Your task to perform on an android device: Go to wifi settings Image 0: 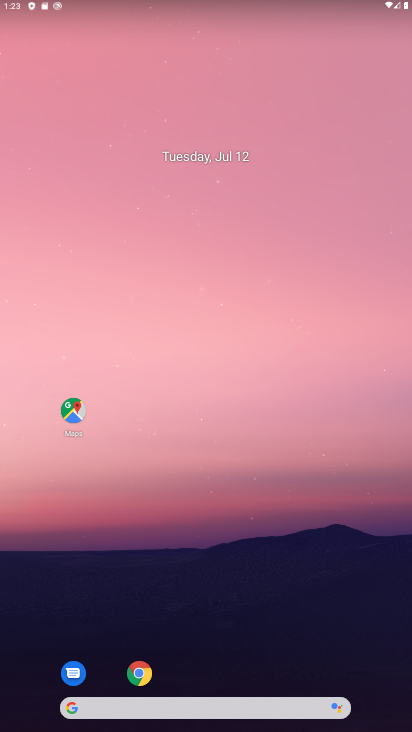
Step 0: drag from (329, 611) to (357, 82)
Your task to perform on an android device: Go to wifi settings Image 1: 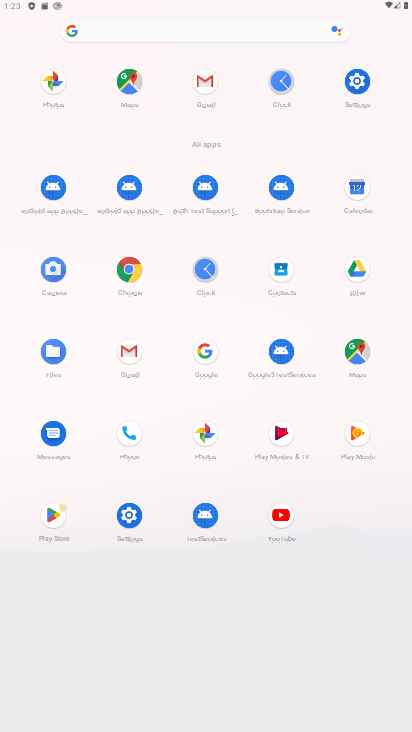
Step 1: click (365, 76)
Your task to perform on an android device: Go to wifi settings Image 2: 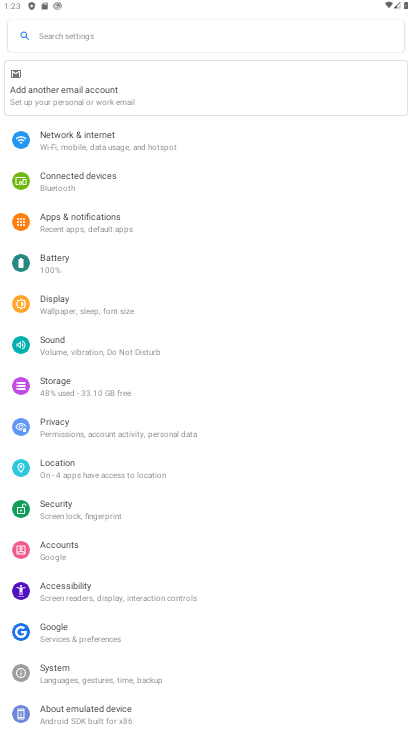
Step 2: press home button
Your task to perform on an android device: Go to wifi settings Image 3: 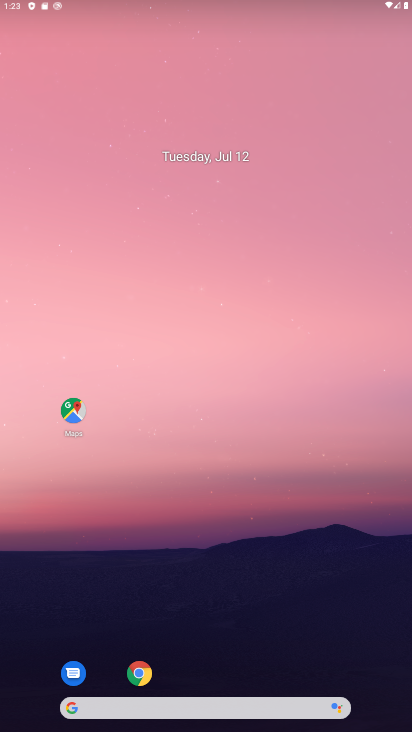
Step 3: drag from (303, 553) to (403, 15)
Your task to perform on an android device: Go to wifi settings Image 4: 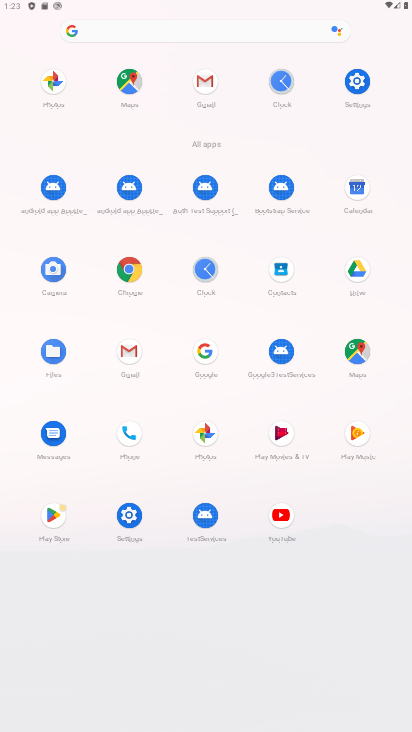
Step 4: click (346, 78)
Your task to perform on an android device: Go to wifi settings Image 5: 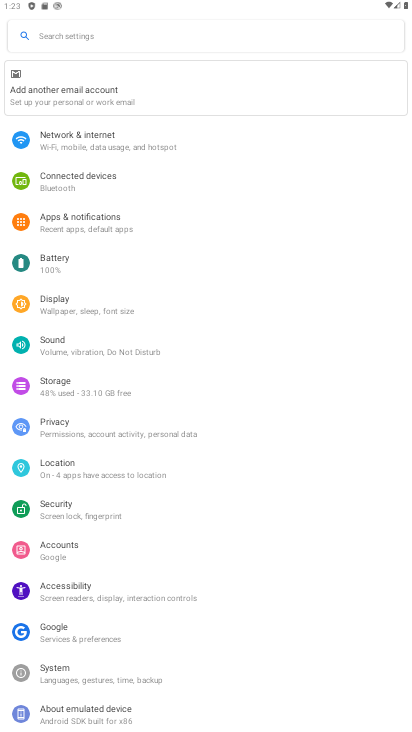
Step 5: click (87, 143)
Your task to perform on an android device: Go to wifi settings Image 6: 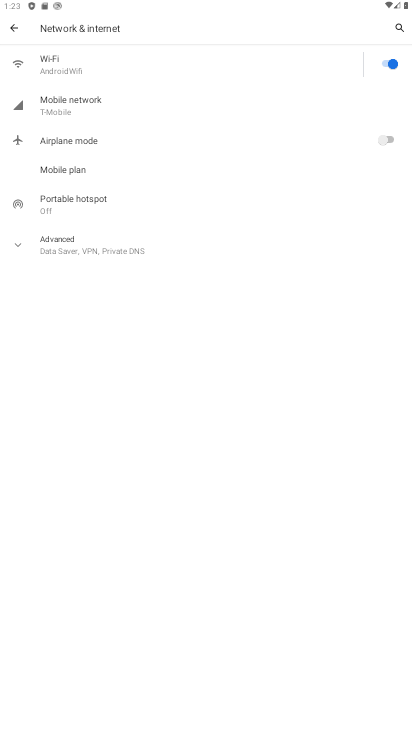
Step 6: click (108, 68)
Your task to perform on an android device: Go to wifi settings Image 7: 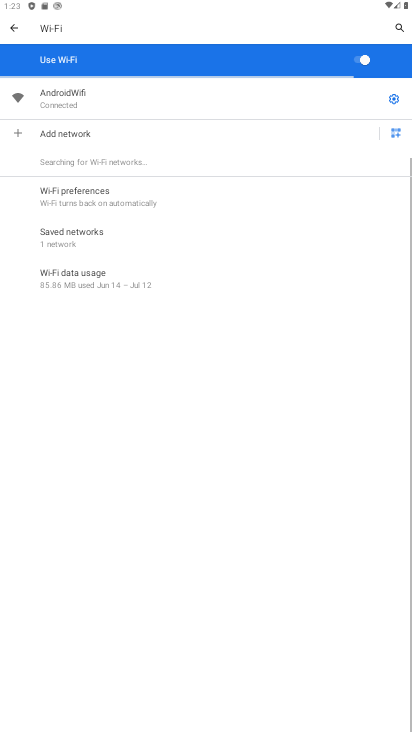
Step 7: task complete